Your task to perform on an android device: create a new album in the google photos Image 0: 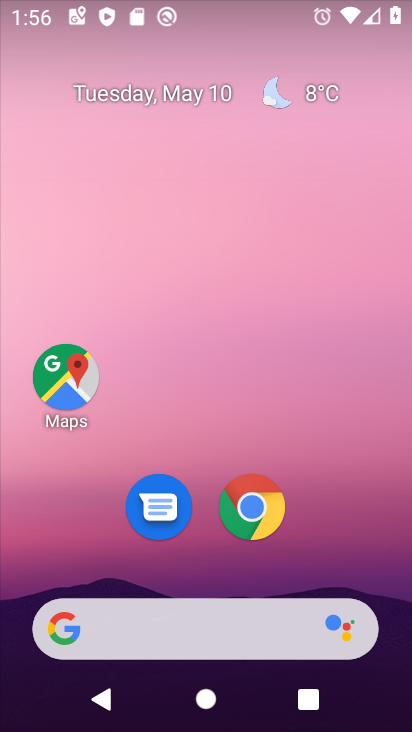
Step 0: click (210, 77)
Your task to perform on an android device: create a new album in the google photos Image 1: 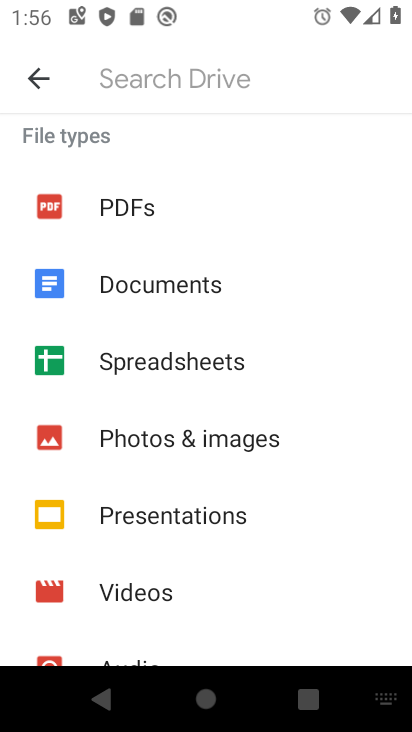
Step 1: press home button
Your task to perform on an android device: create a new album in the google photos Image 2: 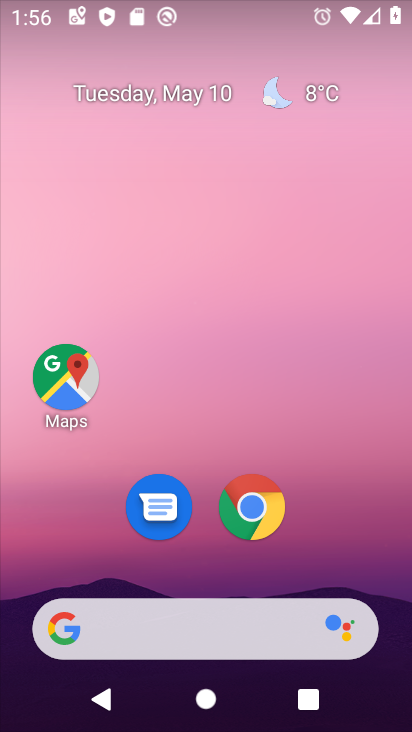
Step 2: drag from (226, 715) to (226, 167)
Your task to perform on an android device: create a new album in the google photos Image 3: 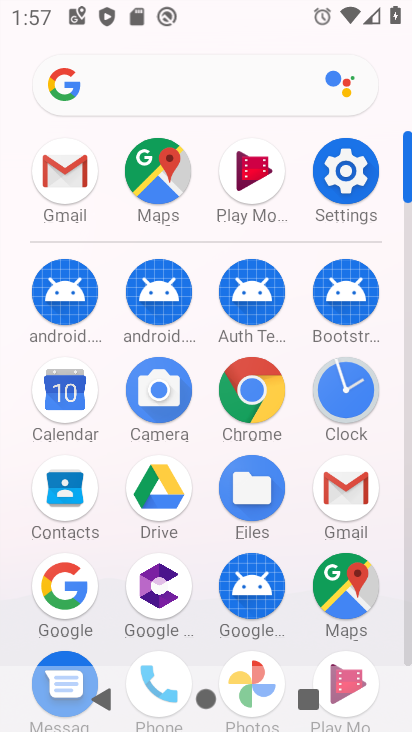
Step 3: drag from (209, 596) to (196, 297)
Your task to perform on an android device: create a new album in the google photos Image 4: 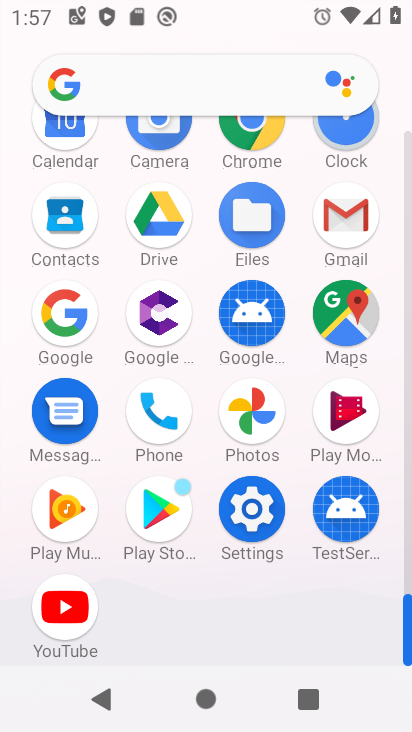
Step 4: click (253, 412)
Your task to perform on an android device: create a new album in the google photos Image 5: 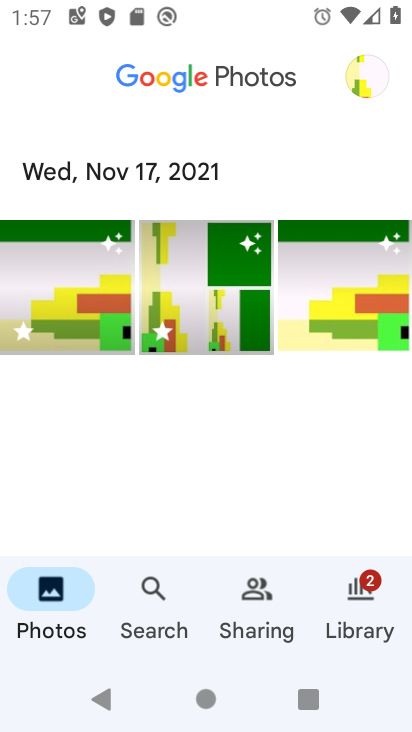
Step 5: click (368, 599)
Your task to perform on an android device: create a new album in the google photos Image 6: 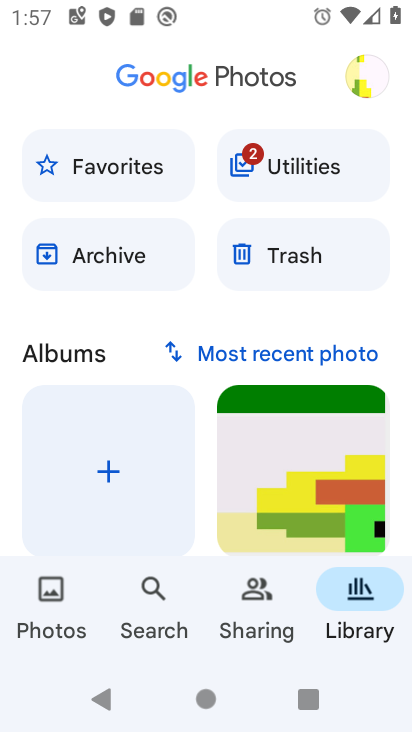
Step 6: click (103, 467)
Your task to perform on an android device: create a new album in the google photos Image 7: 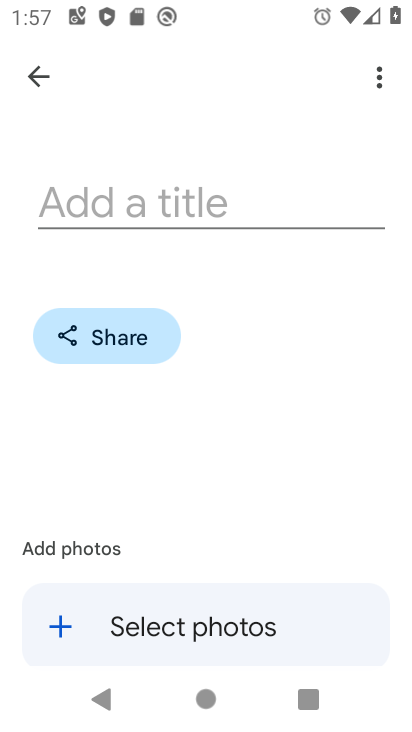
Step 7: click (164, 198)
Your task to perform on an android device: create a new album in the google photos Image 8: 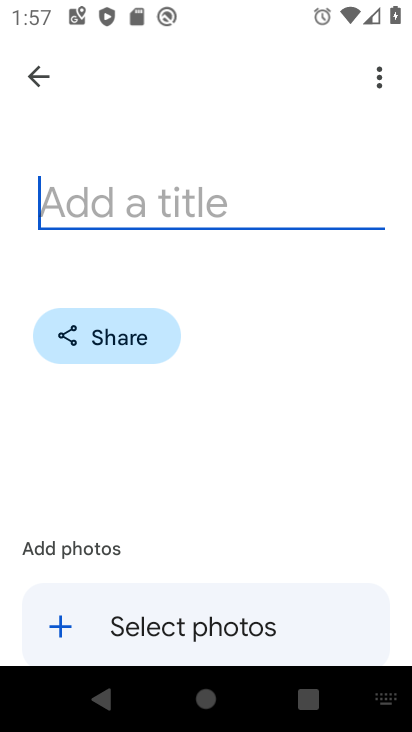
Step 8: type "akhand"
Your task to perform on an android device: create a new album in the google photos Image 9: 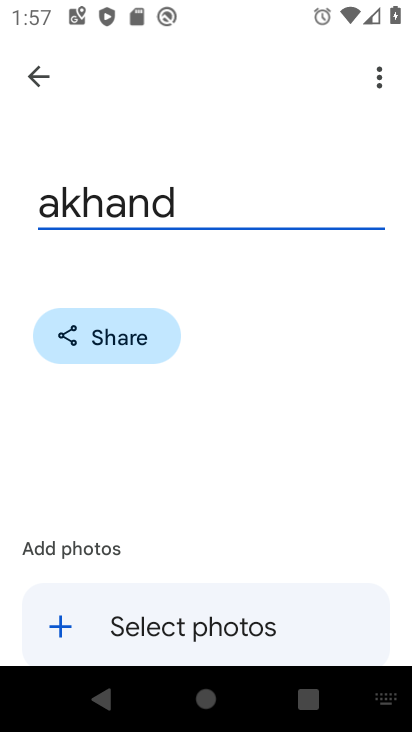
Step 9: click (107, 614)
Your task to perform on an android device: create a new album in the google photos Image 10: 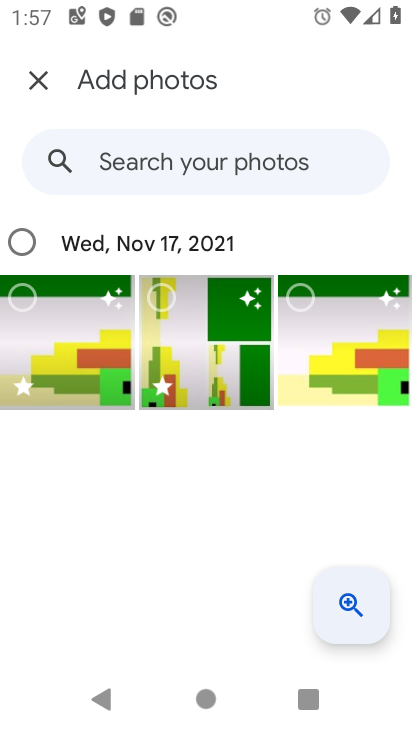
Step 10: click (21, 303)
Your task to perform on an android device: create a new album in the google photos Image 11: 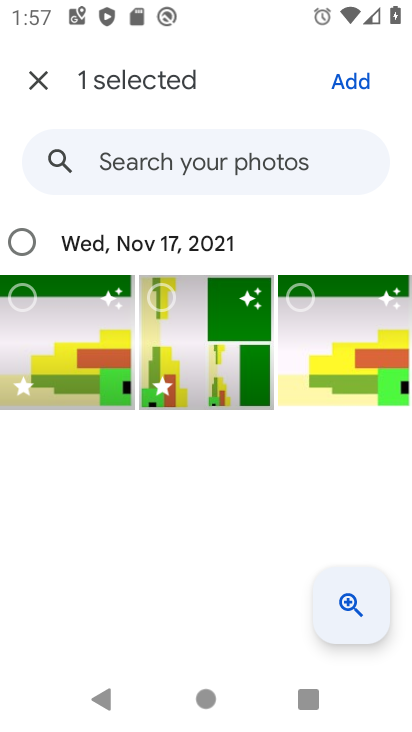
Step 11: click (171, 293)
Your task to perform on an android device: create a new album in the google photos Image 12: 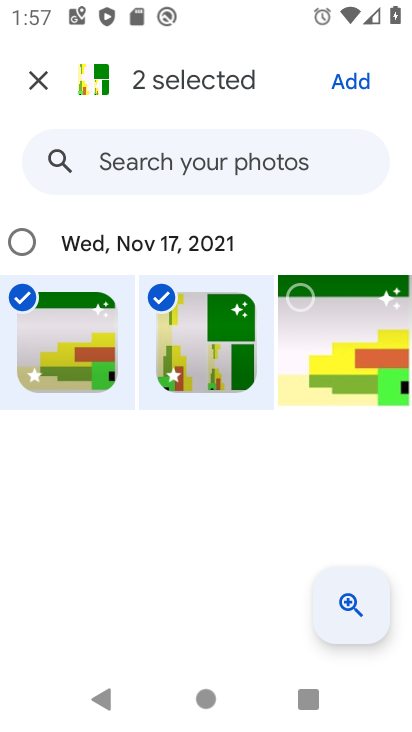
Step 12: click (356, 79)
Your task to perform on an android device: create a new album in the google photos Image 13: 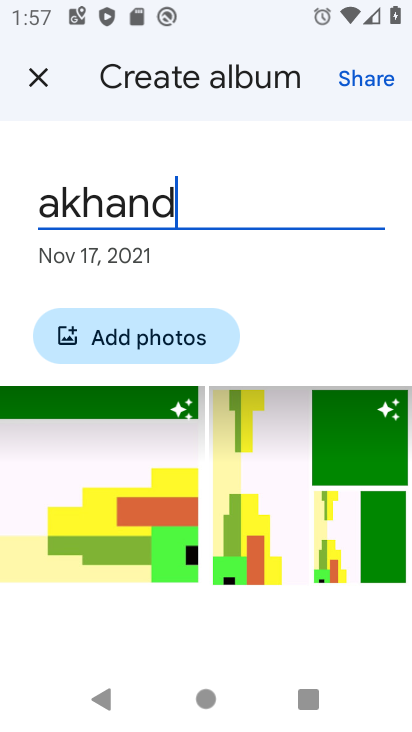
Step 13: click (323, 291)
Your task to perform on an android device: create a new album in the google photos Image 14: 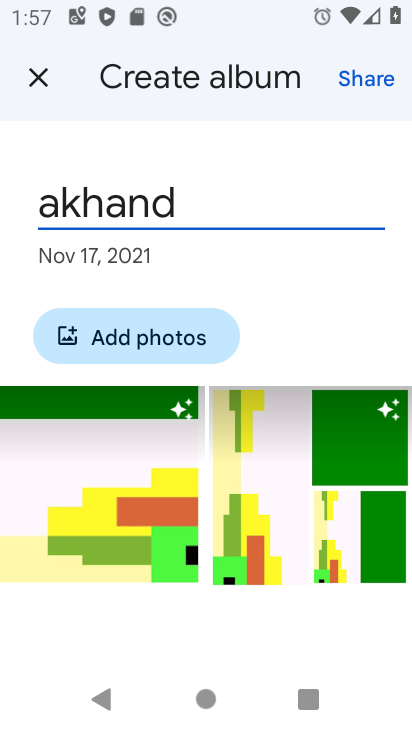
Step 14: click (310, 352)
Your task to perform on an android device: create a new album in the google photos Image 15: 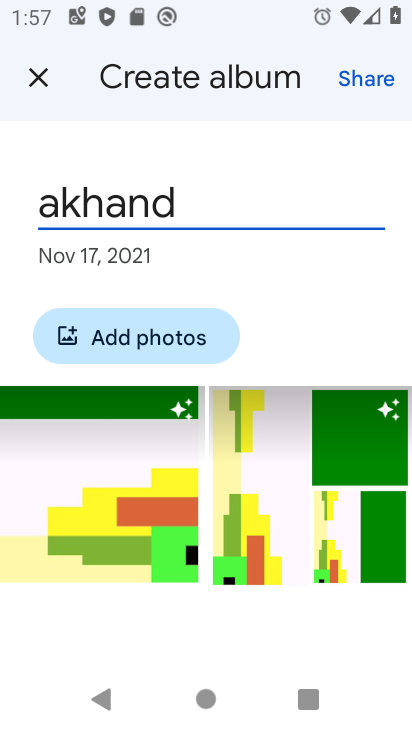
Step 15: click (309, 322)
Your task to perform on an android device: create a new album in the google photos Image 16: 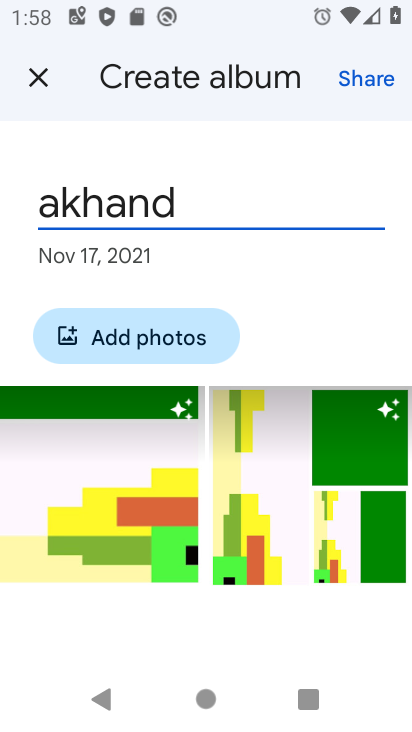
Step 16: task complete